Your task to perform on an android device: Open the Play Movies app and select the watchlist tab. Image 0: 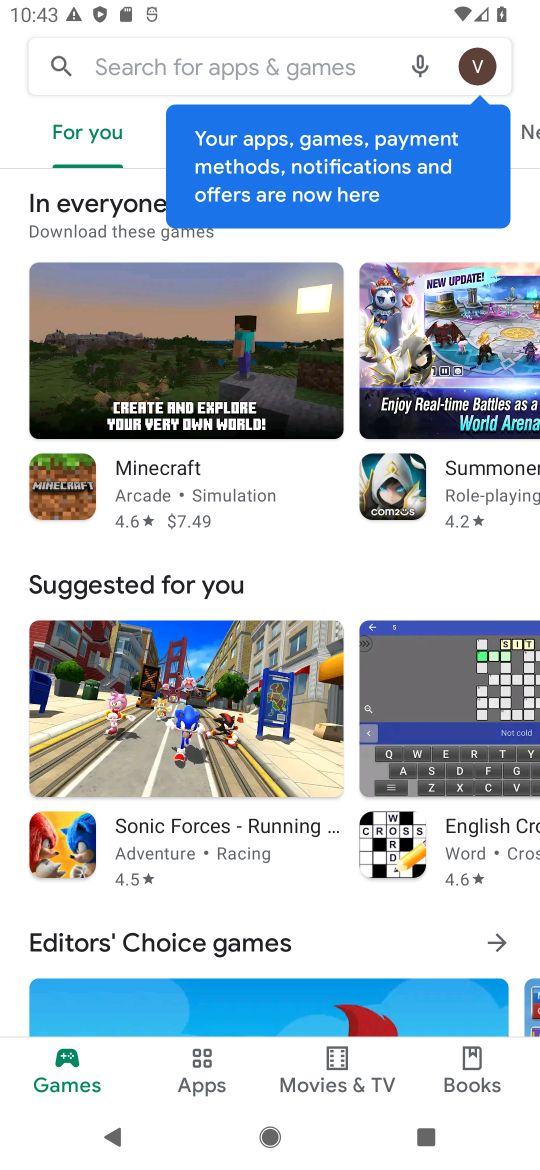
Step 0: press home button
Your task to perform on an android device: Open the Play Movies app and select the watchlist tab. Image 1: 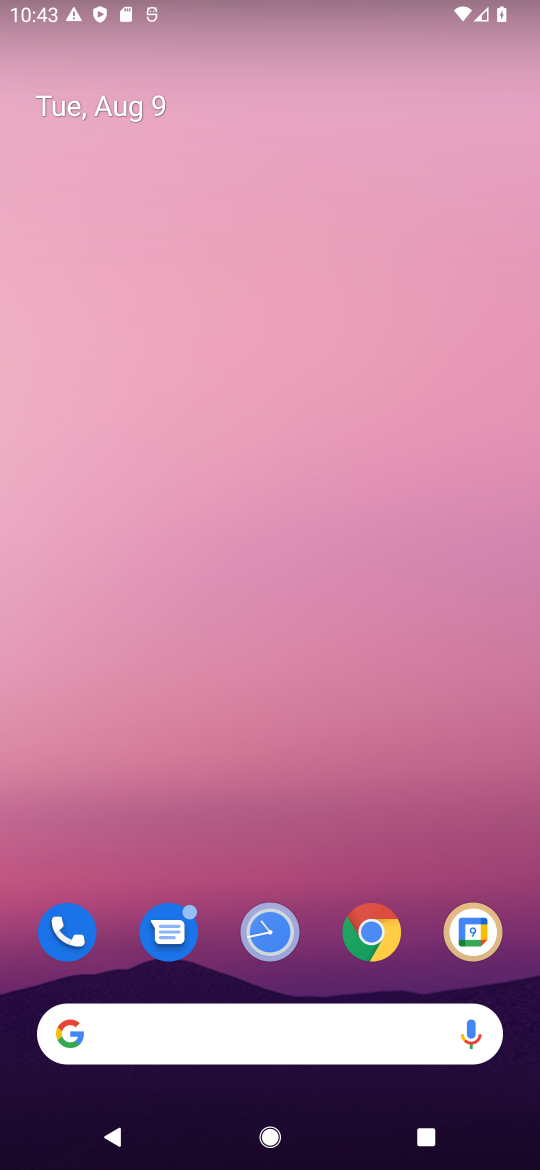
Step 1: drag from (219, 791) to (290, 135)
Your task to perform on an android device: Open the Play Movies app and select the watchlist tab. Image 2: 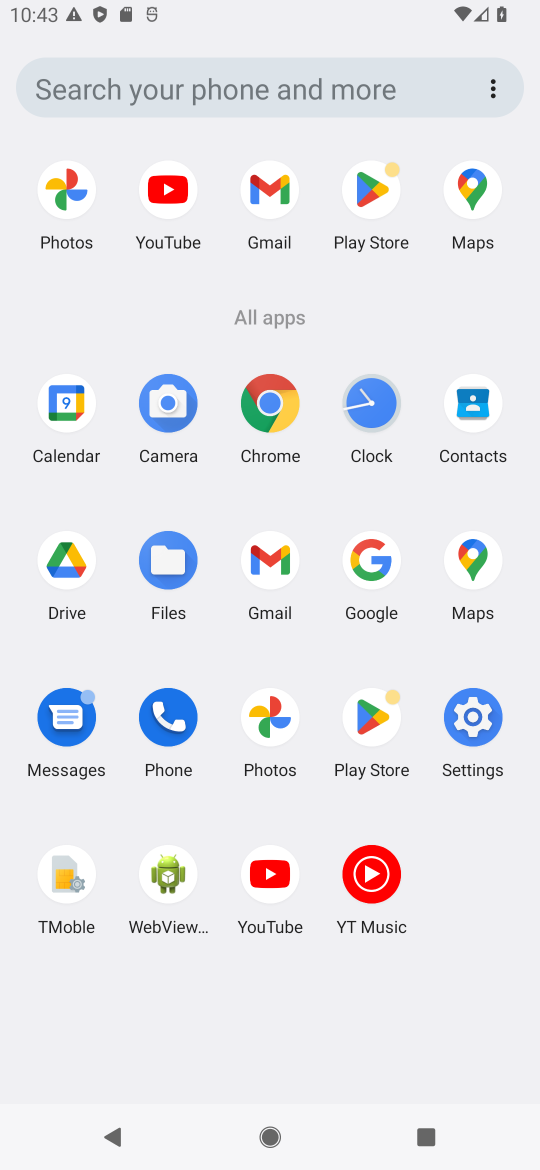
Step 2: click (371, 742)
Your task to perform on an android device: Open the Play Movies app and select the watchlist tab. Image 3: 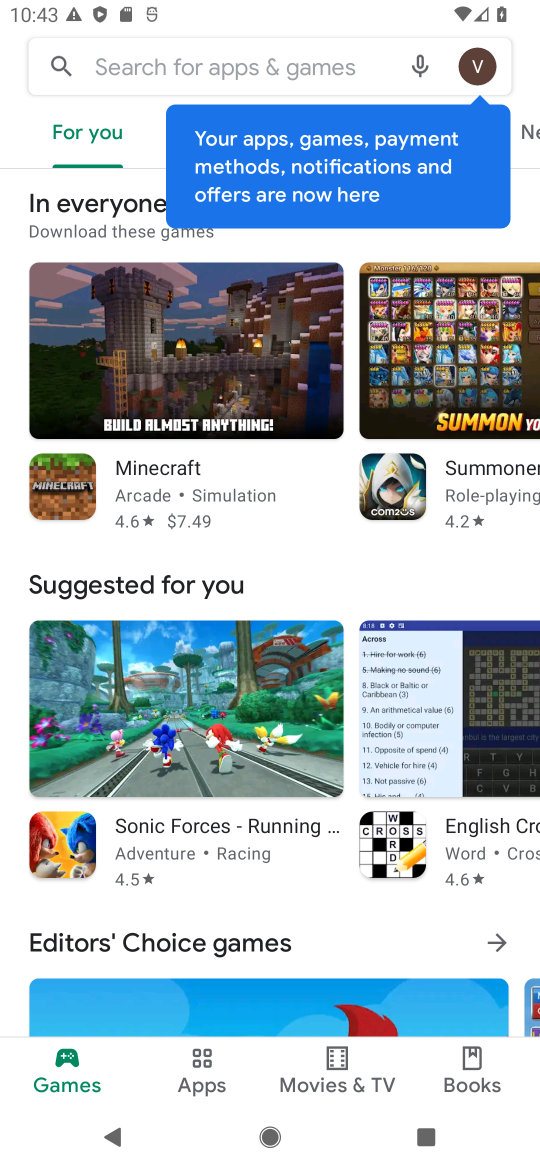
Step 3: click (242, 73)
Your task to perform on an android device: Open the Play Movies app and select the watchlist tab. Image 4: 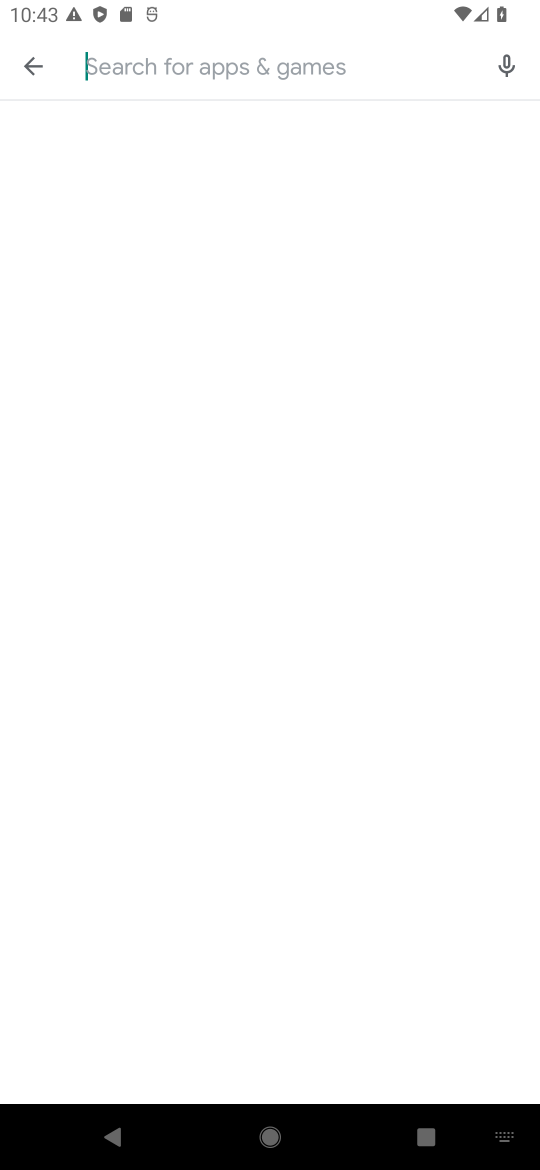
Step 4: type ""
Your task to perform on an android device: Open the Play Movies app and select the watchlist tab. Image 5: 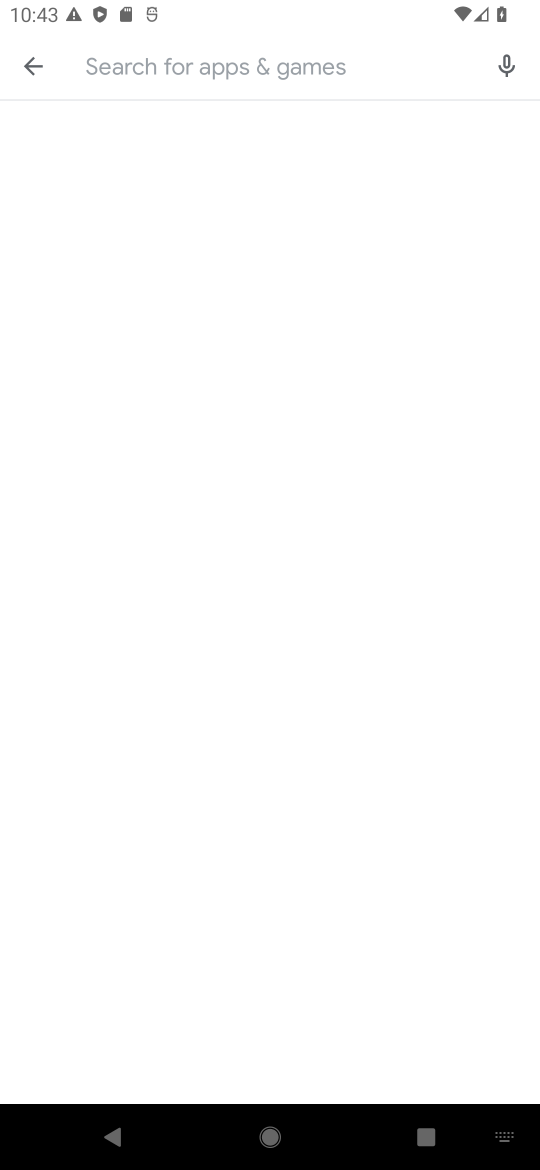
Step 5: type "playmovies"
Your task to perform on an android device: Open the Play Movies app and select the watchlist tab. Image 6: 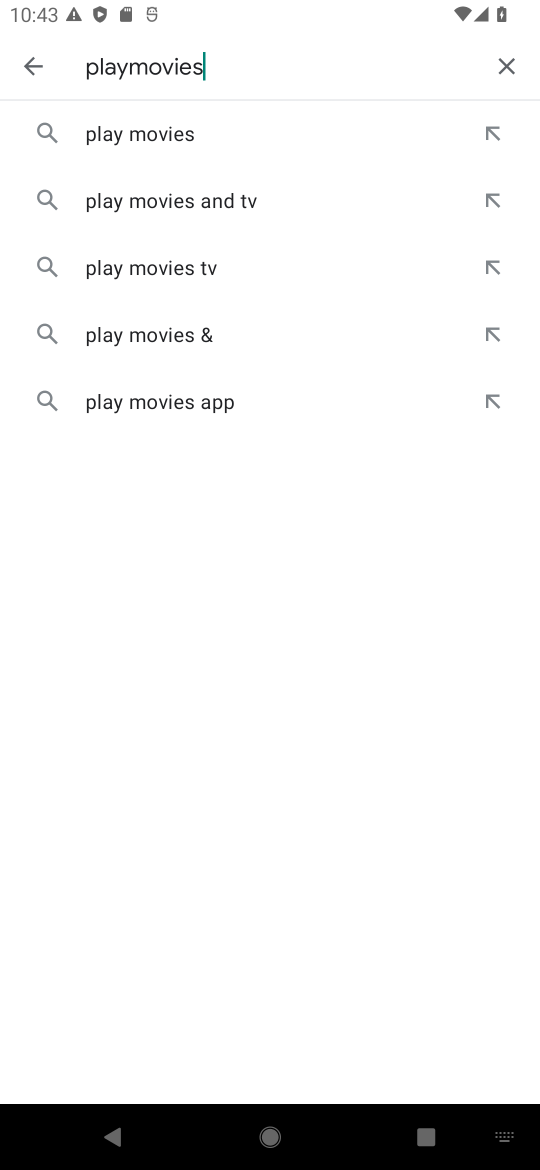
Step 6: click (138, 141)
Your task to perform on an android device: Open the Play Movies app and select the watchlist tab. Image 7: 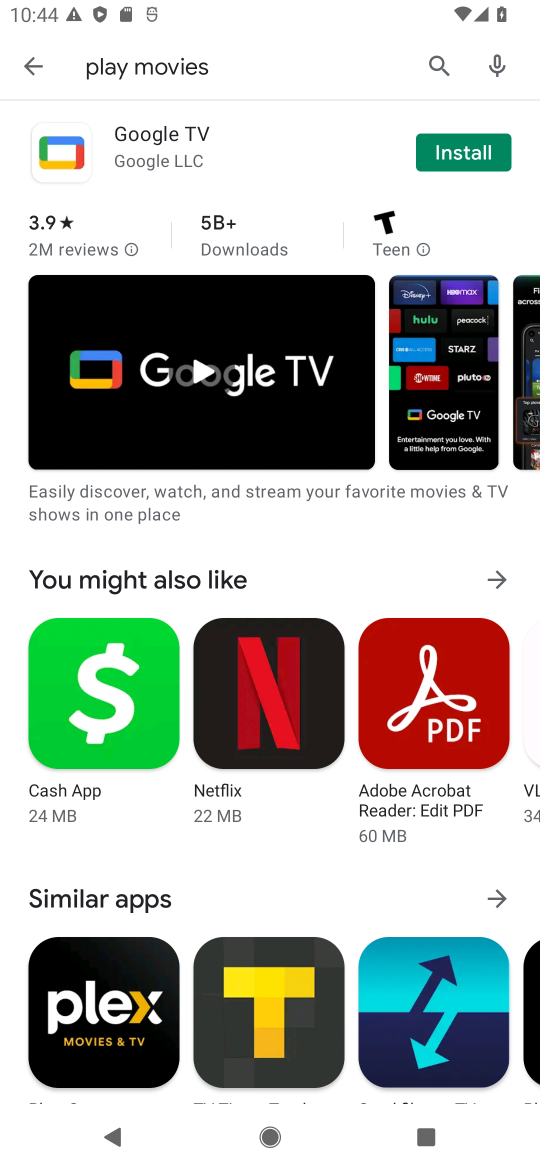
Step 7: task complete